Your task to perform on an android device: Open the calendar app, open the side menu, and click the "Day" option Image 0: 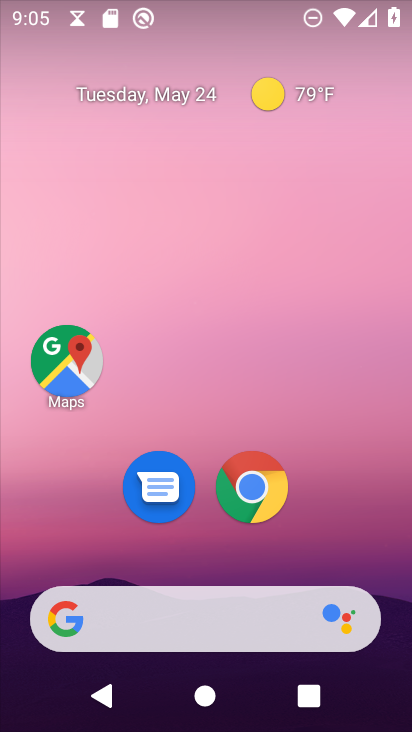
Step 0: drag from (11, 615) to (263, 196)
Your task to perform on an android device: Open the calendar app, open the side menu, and click the "Day" option Image 1: 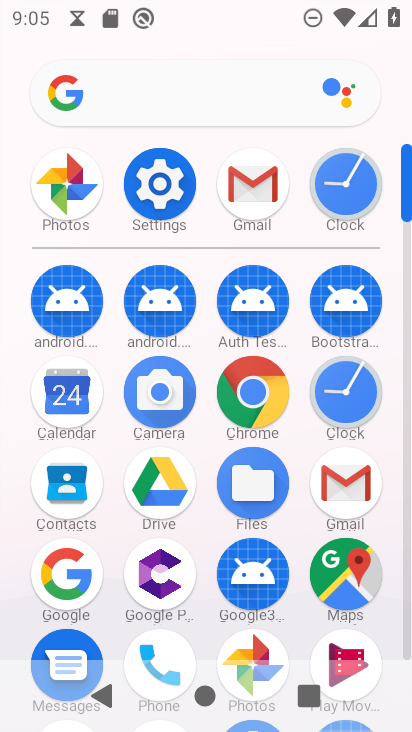
Step 1: click (65, 392)
Your task to perform on an android device: Open the calendar app, open the side menu, and click the "Day" option Image 2: 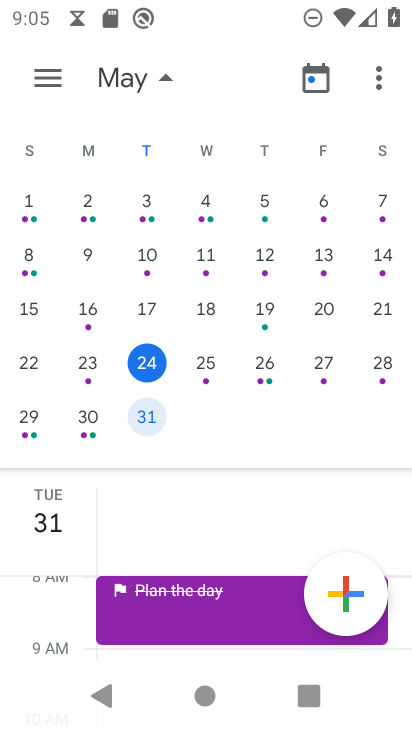
Step 2: click (52, 78)
Your task to perform on an android device: Open the calendar app, open the side menu, and click the "Day" option Image 3: 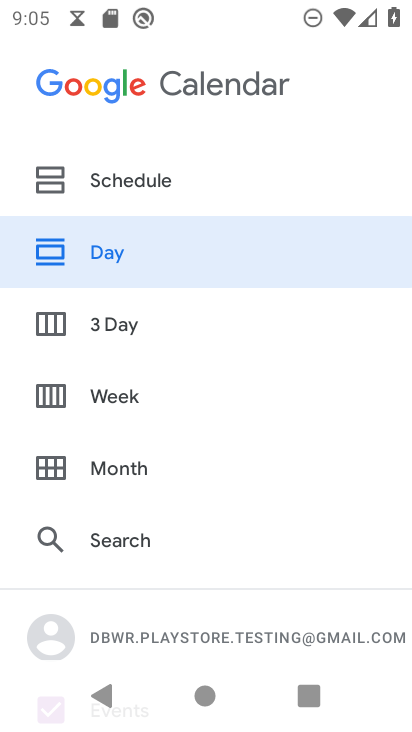
Step 3: click (154, 243)
Your task to perform on an android device: Open the calendar app, open the side menu, and click the "Day" option Image 4: 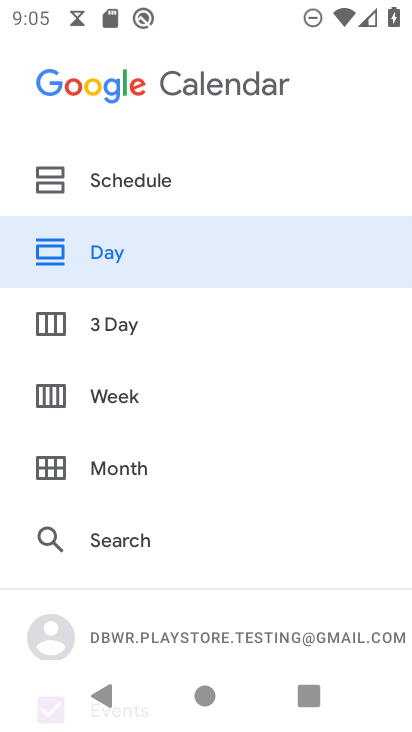
Step 4: click (166, 227)
Your task to perform on an android device: Open the calendar app, open the side menu, and click the "Day" option Image 5: 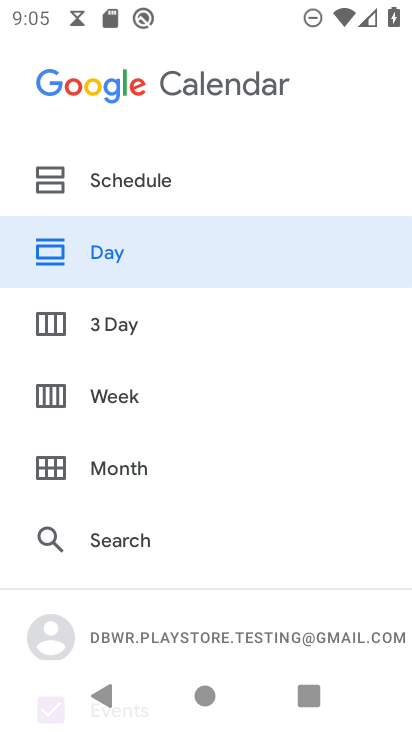
Step 5: click (124, 245)
Your task to perform on an android device: Open the calendar app, open the side menu, and click the "Day" option Image 6: 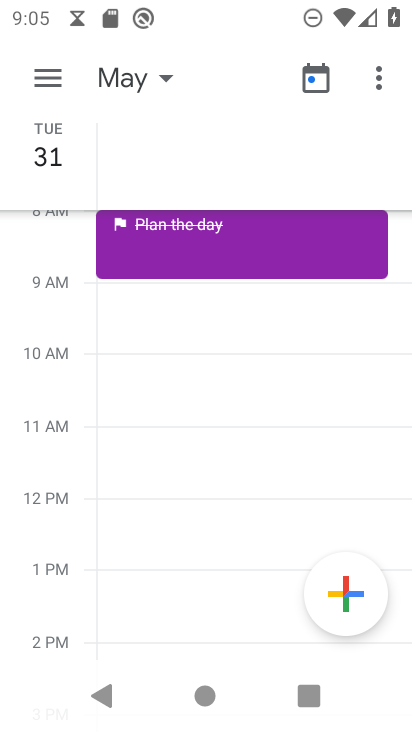
Step 6: task complete